Your task to perform on an android device: Go to Google Image 0: 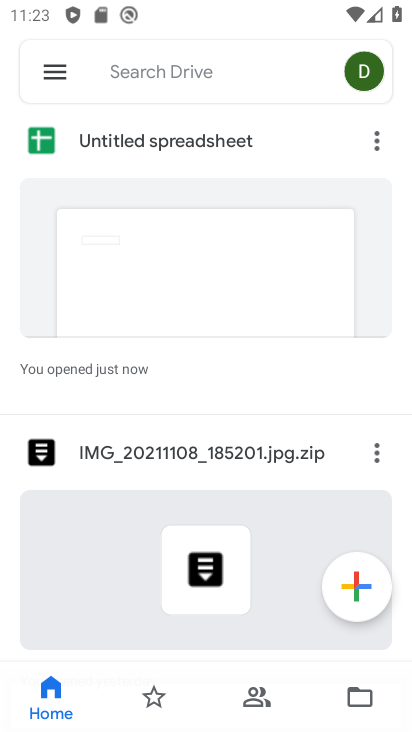
Step 0: press home button
Your task to perform on an android device: Go to Google Image 1: 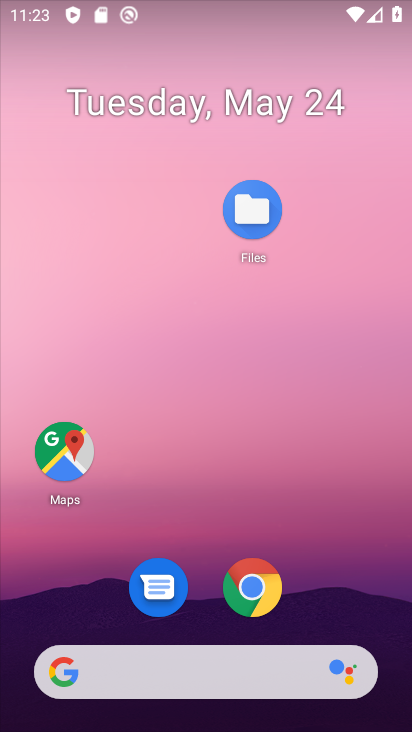
Step 1: drag from (309, 589) to (45, 145)
Your task to perform on an android device: Go to Google Image 2: 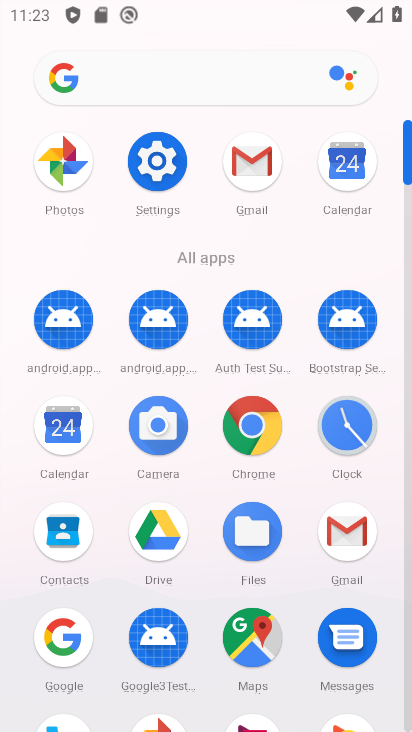
Step 2: click (68, 630)
Your task to perform on an android device: Go to Google Image 3: 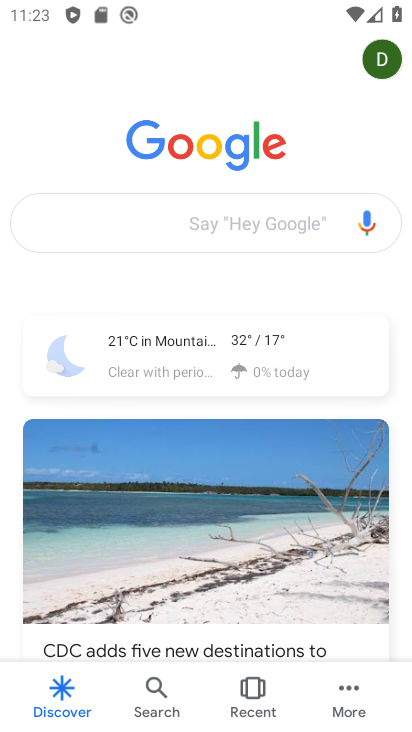
Step 3: task complete